Your task to perform on an android device: see sites visited before in the chrome app Image 0: 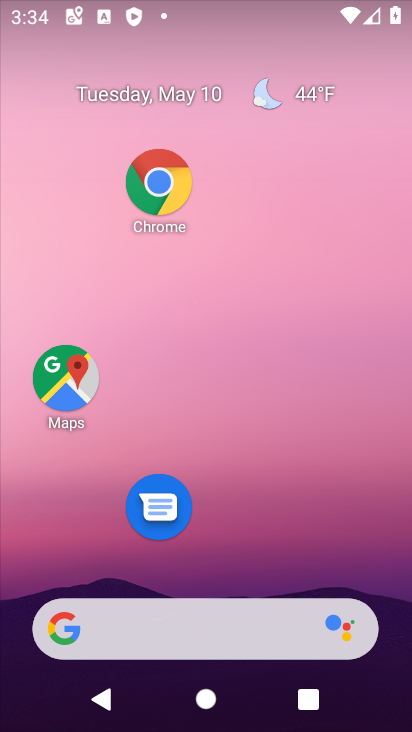
Step 0: click (139, 220)
Your task to perform on an android device: see sites visited before in the chrome app Image 1: 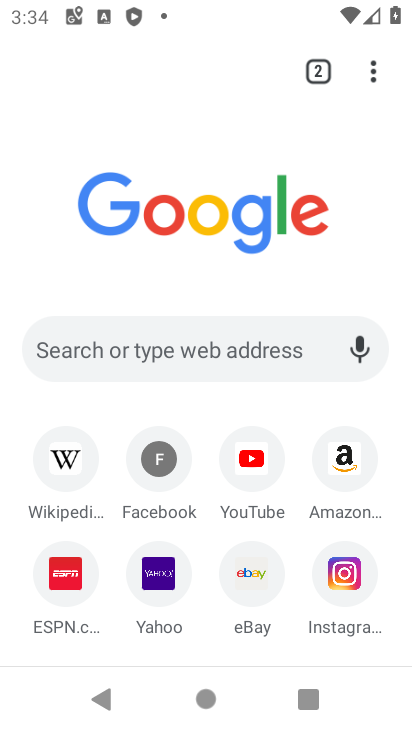
Step 1: click (377, 89)
Your task to perform on an android device: see sites visited before in the chrome app Image 2: 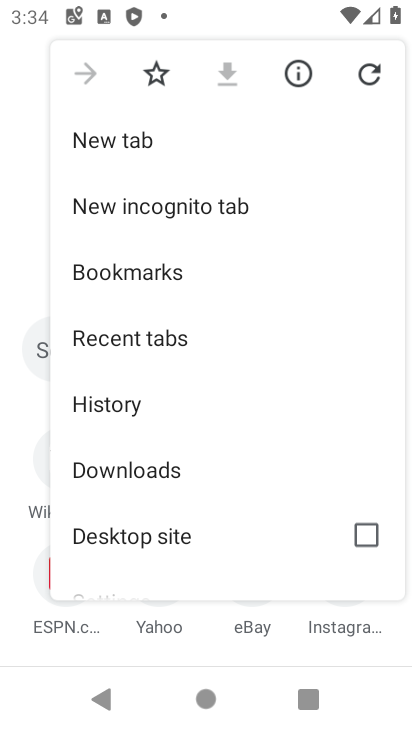
Step 2: click (153, 337)
Your task to perform on an android device: see sites visited before in the chrome app Image 3: 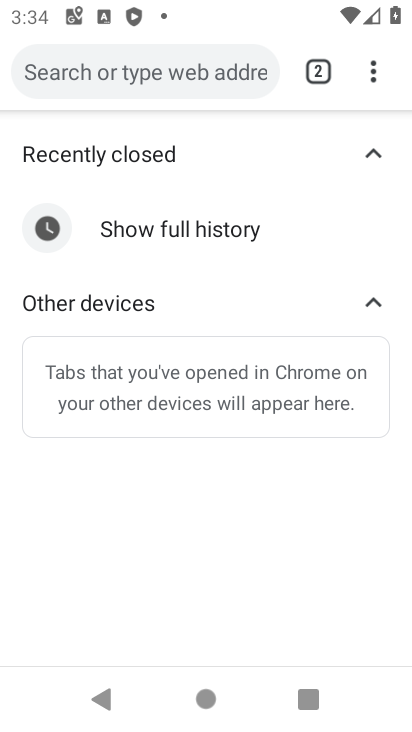
Step 3: task complete